Your task to perform on an android device: change the upload size in google photos Image 0: 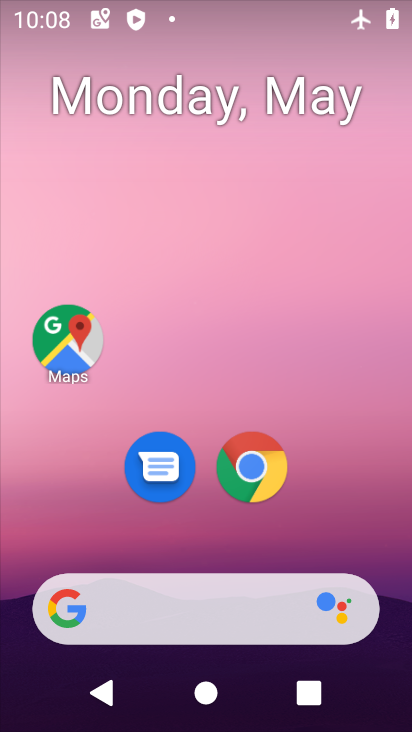
Step 0: drag from (387, 644) to (284, 124)
Your task to perform on an android device: change the upload size in google photos Image 1: 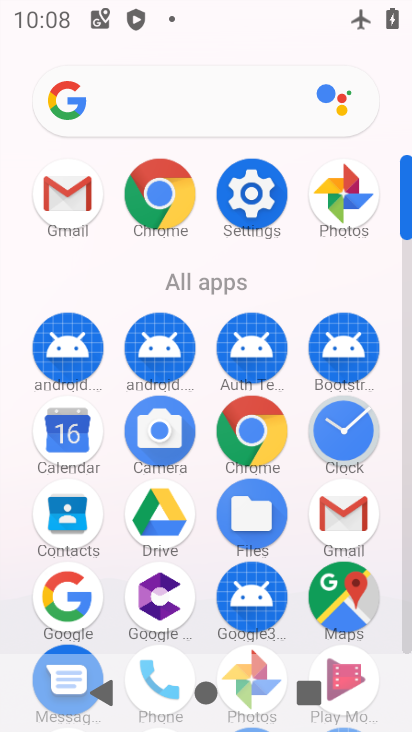
Step 1: click (407, 626)
Your task to perform on an android device: change the upload size in google photos Image 2: 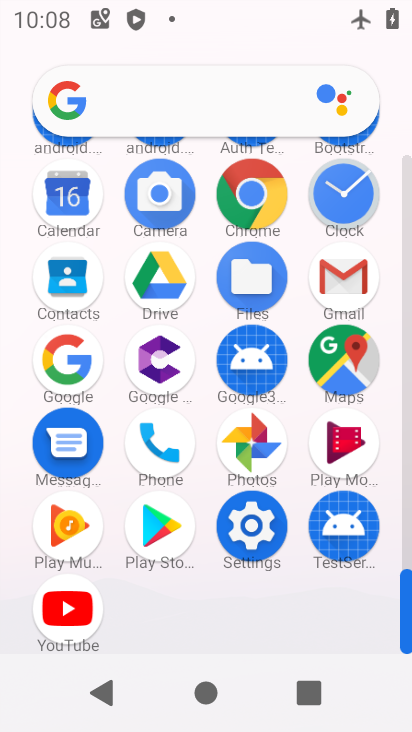
Step 2: click (247, 442)
Your task to perform on an android device: change the upload size in google photos Image 3: 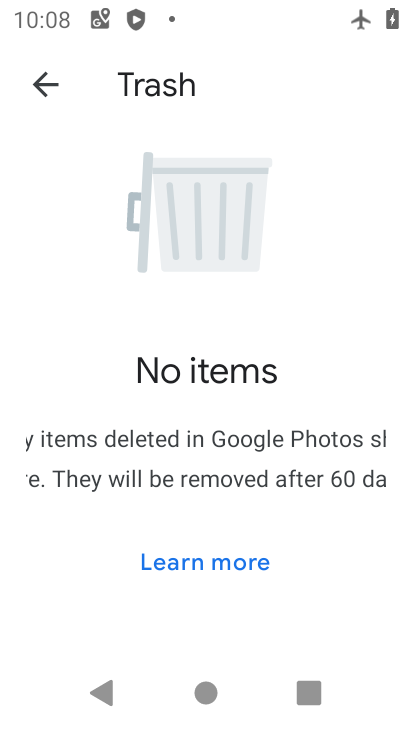
Step 3: press back button
Your task to perform on an android device: change the upload size in google photos Image 4: 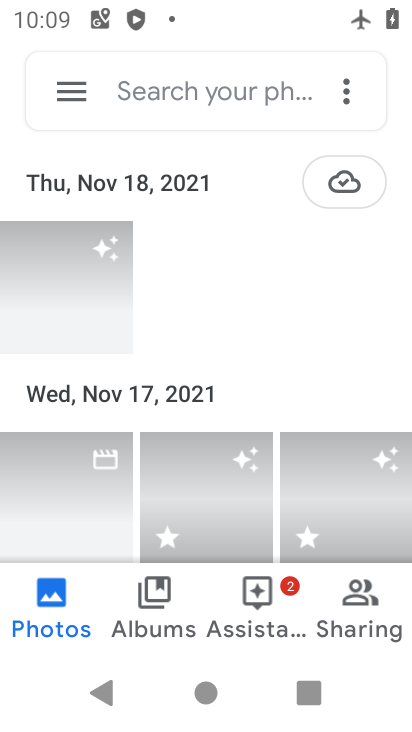
Step 4: click (57, 83)
Your task to perform on an android device: change the upload size in google photos Image 5: 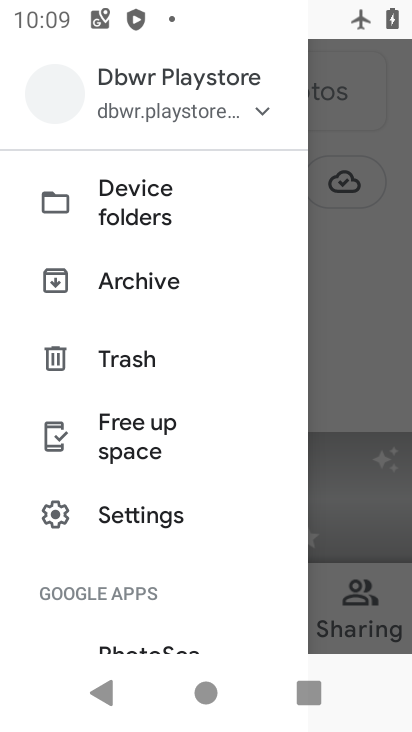
Step 5: click (139, 521)
Your task to perform on an android device: change the upload size in google photos Image 6: 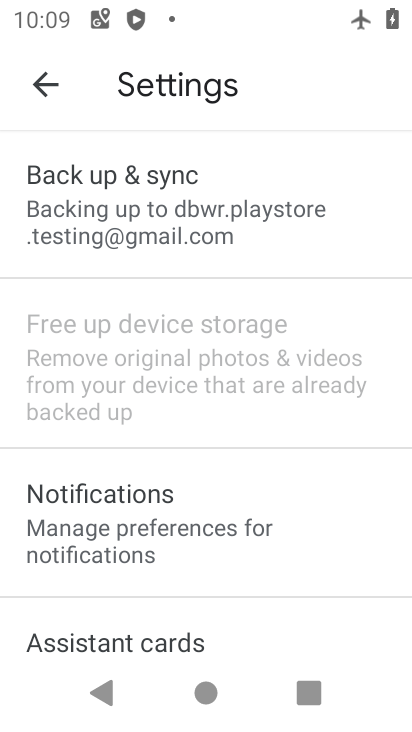
Step 6: click (97, 201)
Your task to perform on an android device: change the upload size in google photos Image 7: 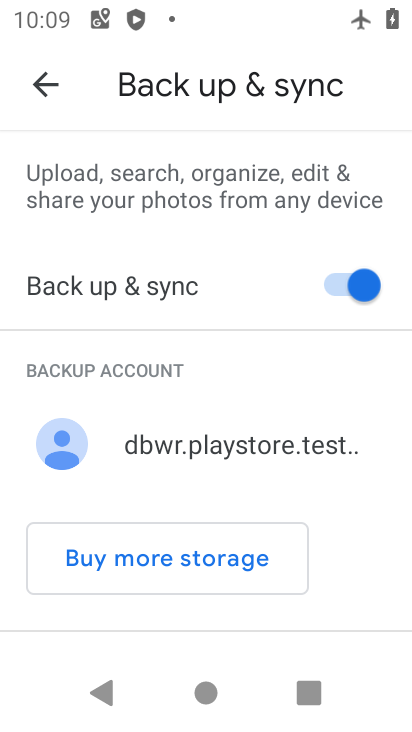
Step 7: drag from (292, 505) to (234, 115)
Your task to perform on an android device: change the upload size in google photos Image 8: 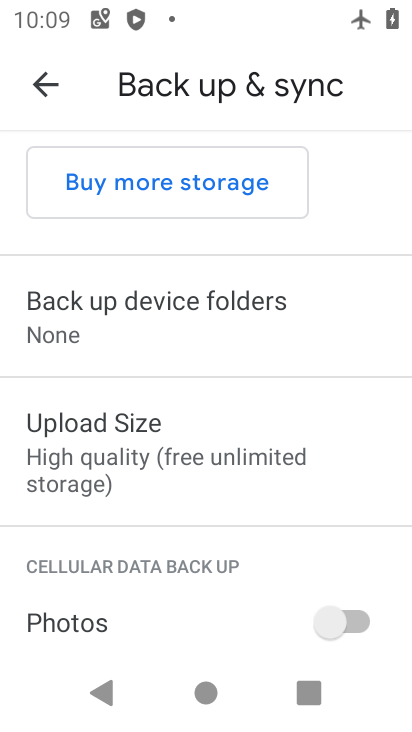
Step 8: click (106, 452)
Your task to perform on an android device: change the upload size in google photos Image 9: 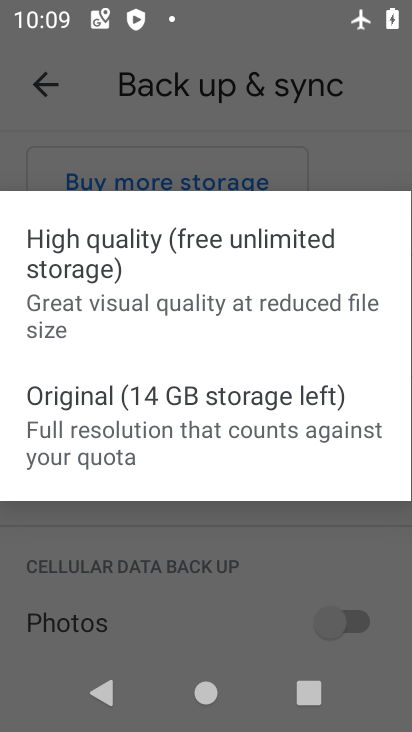
Step 9: click (107, 430)
Your task to perform on an android device: change the upload size in google photos Image 10: 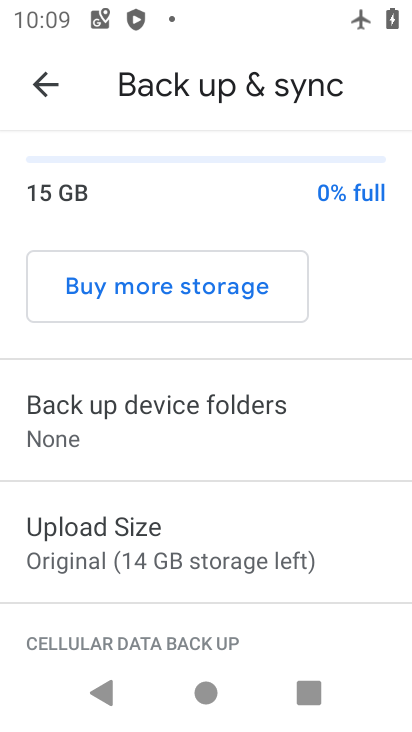
Step 10: task complete